Your task to perform on an android device: delete browsing data in the chrome app Image 0: 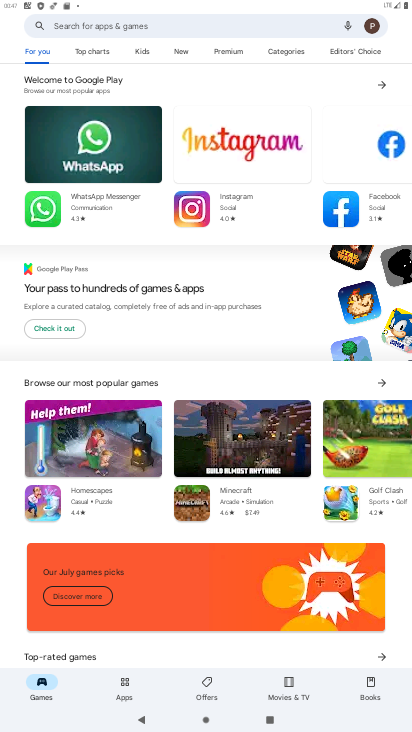
Step 0: press home button
Your task to perform on an android device: delete browsing data in the chrome app Image 1: 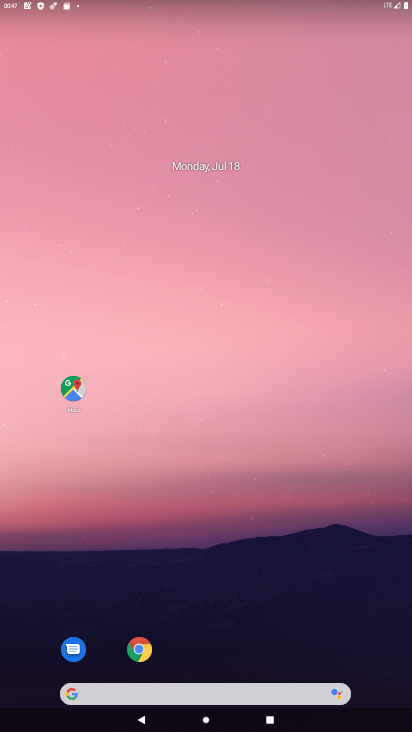
Step 1: click (138, 649)
Your task to perform on an android device: delete browsing data in the chrome app Image 2: 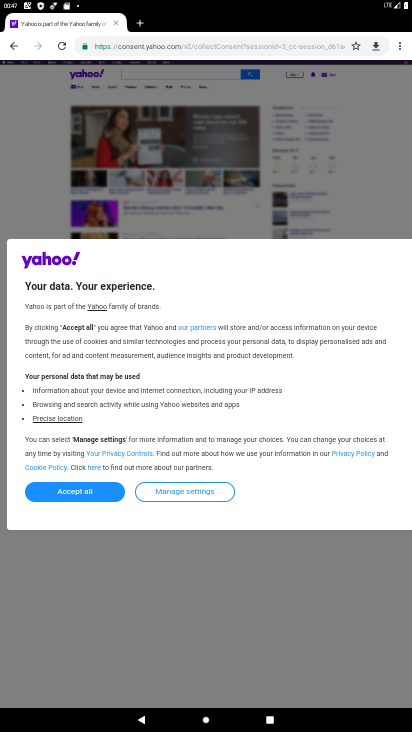
Step 2: click (402, 46)
Your task to perform on an android device: delete browsing data in the chrome app Image 3: 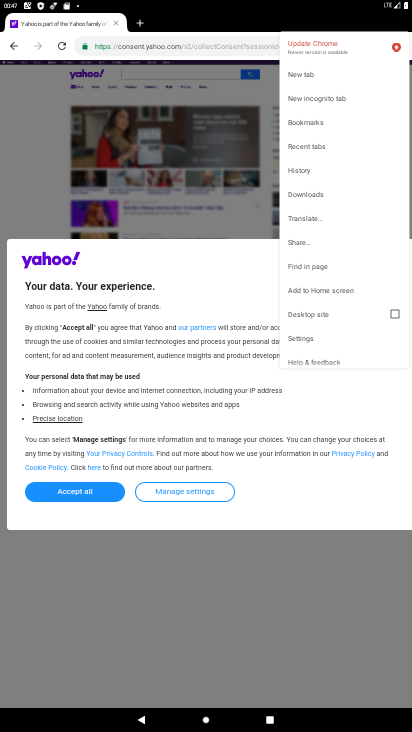
Step 3: click (297, 173)
Your task to perform on an android device: delete browsing data in the chrome app Image 4: 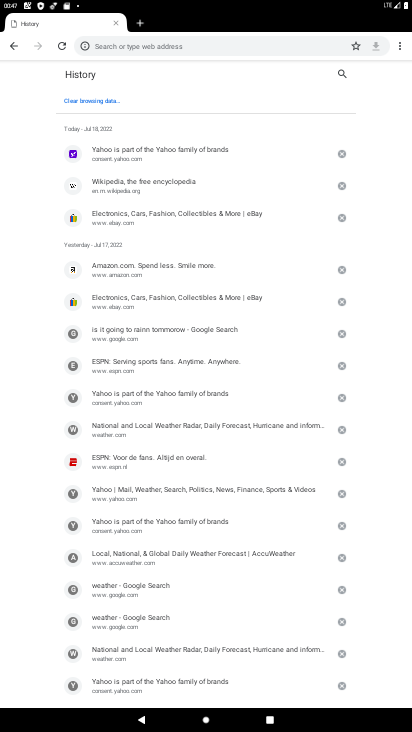
Step 4: click (92, 101)
Your task to perform on an android device: delete browsing data in the chrome app Image 5: 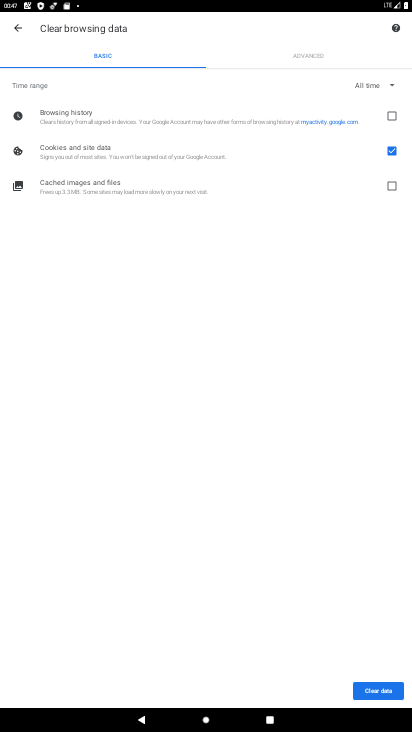
Step 5: click (398, 115)
Your task to perform on an android device: delete browsing data in the chrome app Image 6: 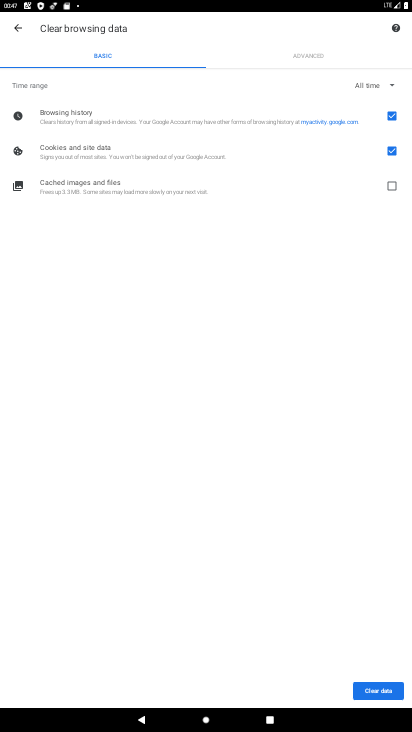
Step 6: click (397, 190)
Your task to perform on an android device: delete browsing data in the chrome app Image 7: 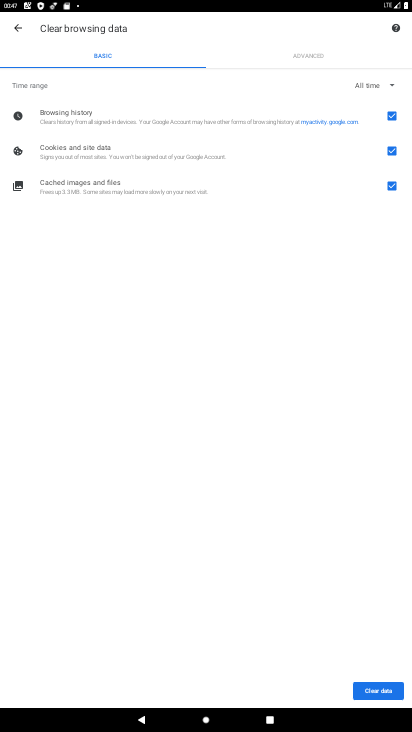
Step 7: click (370, 695)
Your task to perform on an android device: delete browsing data in the chrome app Image 8: 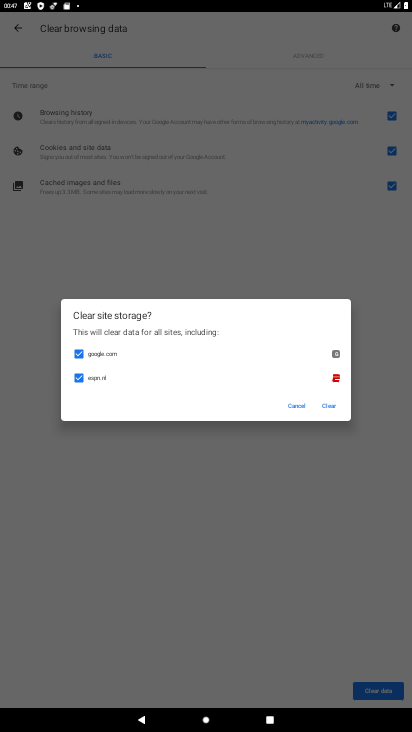
Step 8: click (331, 399)
Your task to perform on an android device: delete browsing data in the chrome app Image 9: 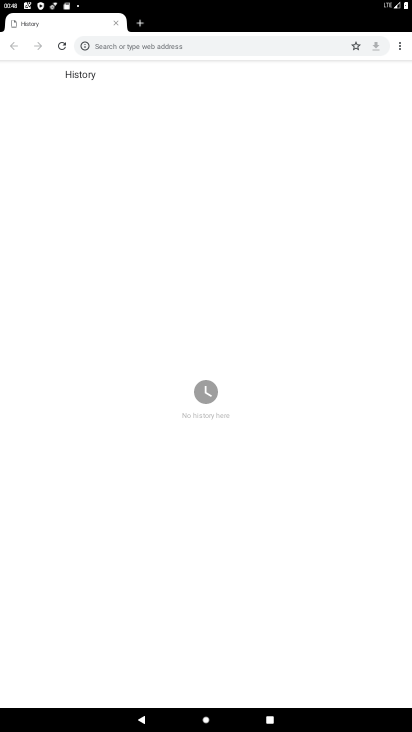
Step 9: task complete